Your task to perform on an android device: open chrome privacy settings Image 0: 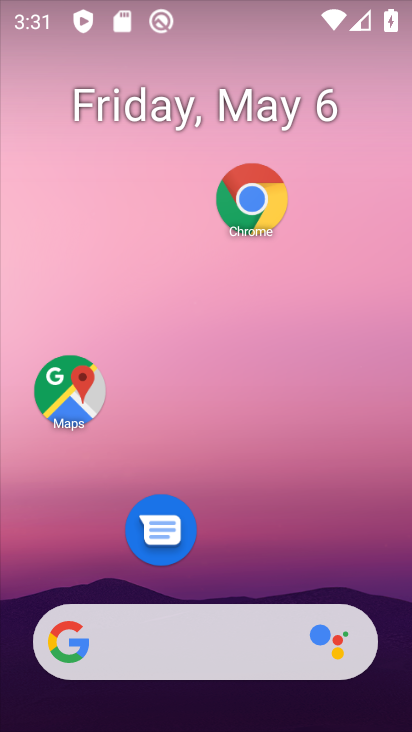
Step 0: drag from (362, 418) to (346, 205)
Your task to perform on an android device: open chrome privacy settings Image 1: 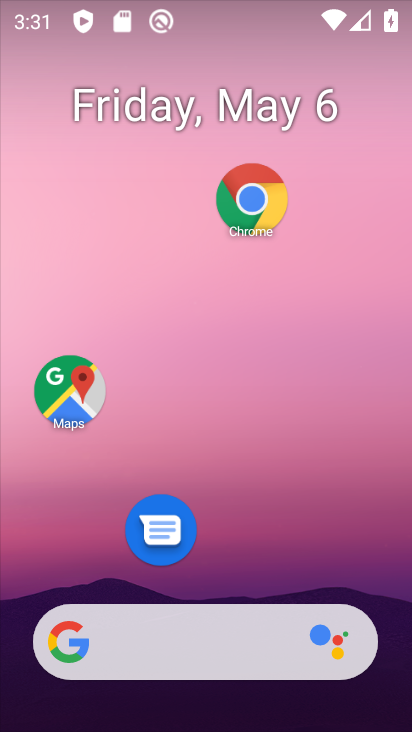
Step 1: click (286, 267)
Your task to perform on an android device: open chrome privacy settings Image 2: 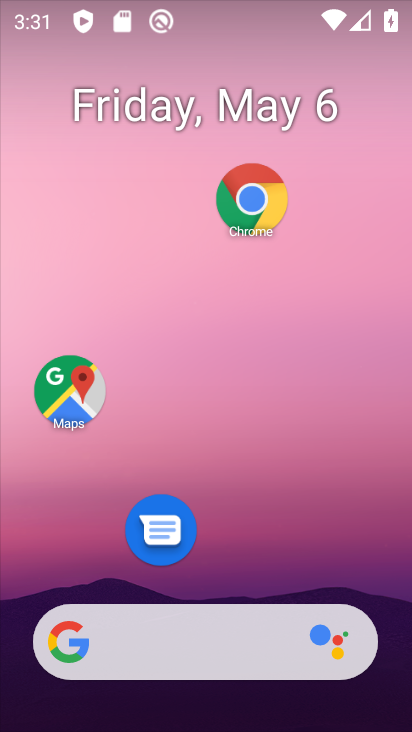
Step 2: click (259, 189)
Your task to perform on an android device: open chrome privacy settings Image 3: 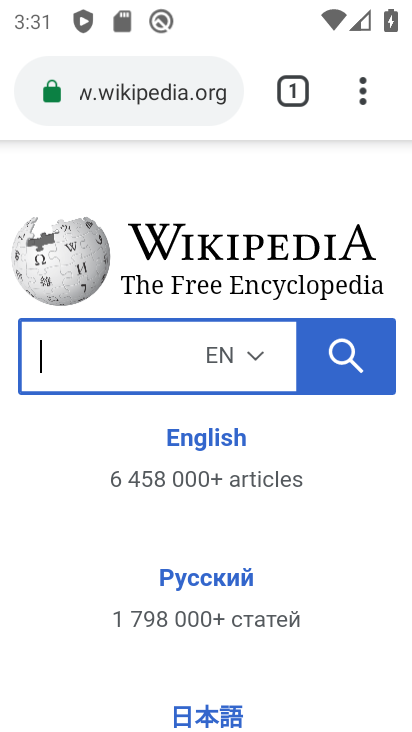
Step 3: click (365, 88)
Your task to perform on an android device: open chrome privacy settings Image 4: 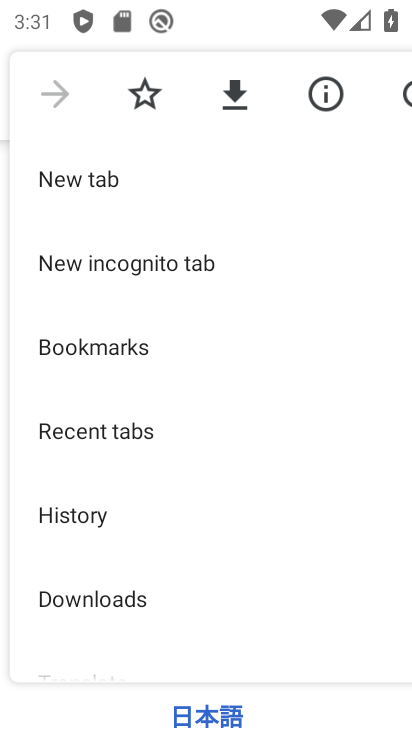
Step 4: drag from (323, 423) to (330, 113)
Your task to perform on an android device: open chrome privacy settings Image 5: 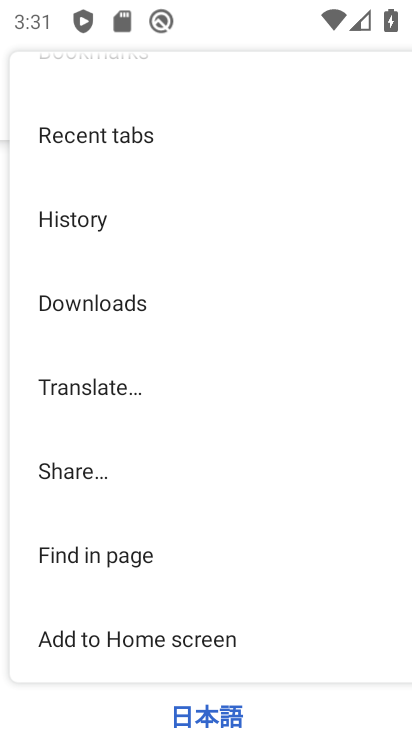
Step 5: drag from (241, 487) to (258, 203)
Your task to perform on an android device: open chrome privacy settings Image 6: 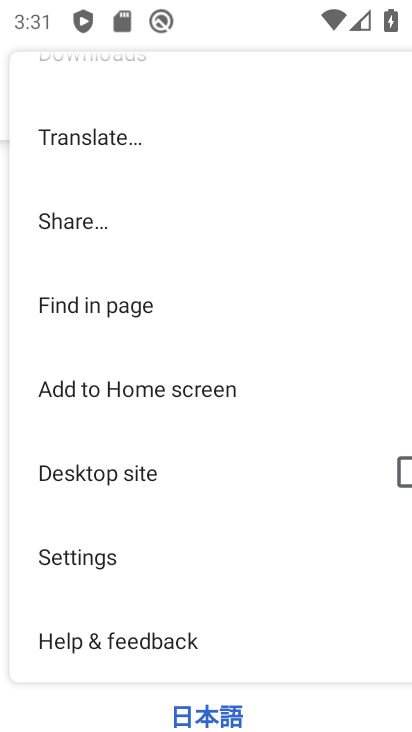
Step 6: drag from (178, 550) to (187, 303)
Your task to perform on an android device: open chrome privacy settings Image 7: 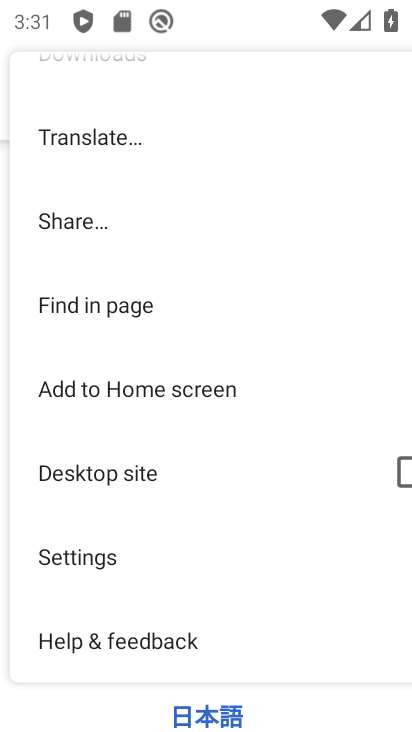
Step 7: click (152, 551)
Your task to perform on an android device: open chrome privacy settings Image 8: 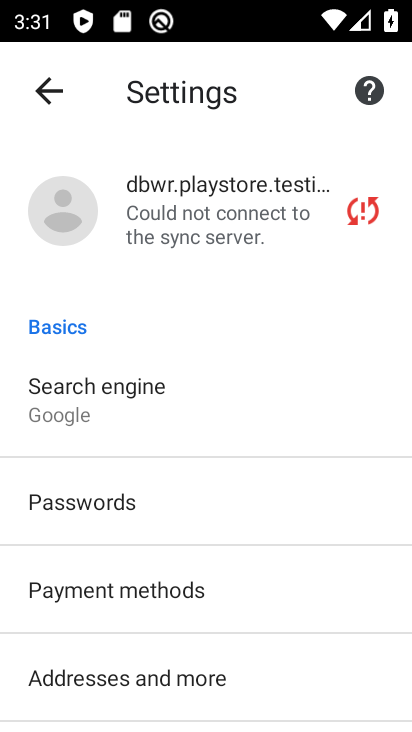
Step 8: drag from (154, 555) to (241, 93)
Your task to perform on an android device: open chrome privacy settings Image 9: 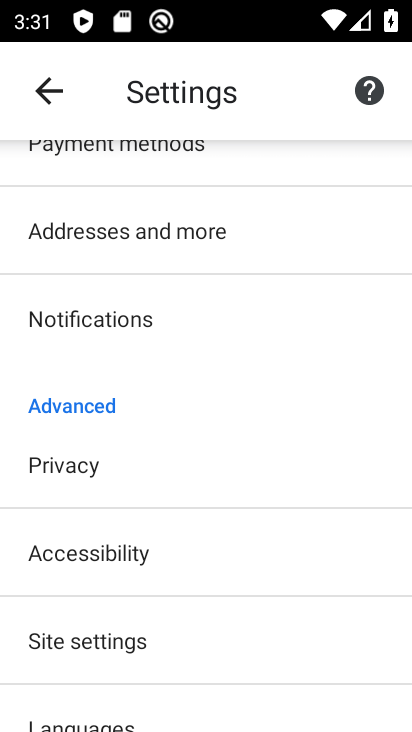
Step 9: drag from (178, 461) to (166, 95)
Your task to perform on an android device: open chrome privacy settings Image 10: 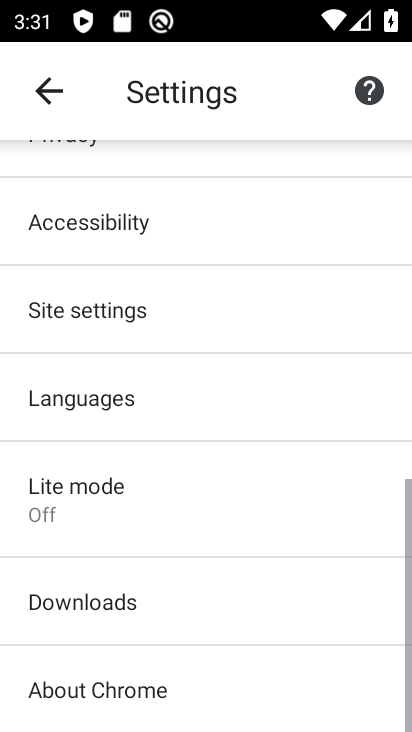
Step 10: drag from (137, 213) to (135, 260)
Your task to perform on an android device: open chrome privacy settings Image 11: 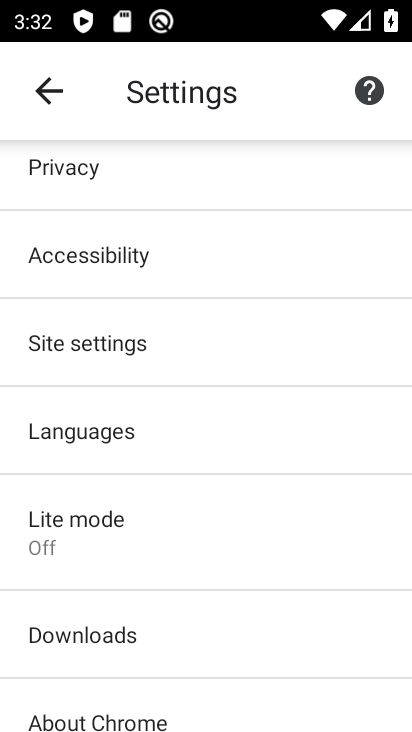
Step 11: click (114, 174)
Your task to perform on an android device: open chrome privacy settings Image 12: 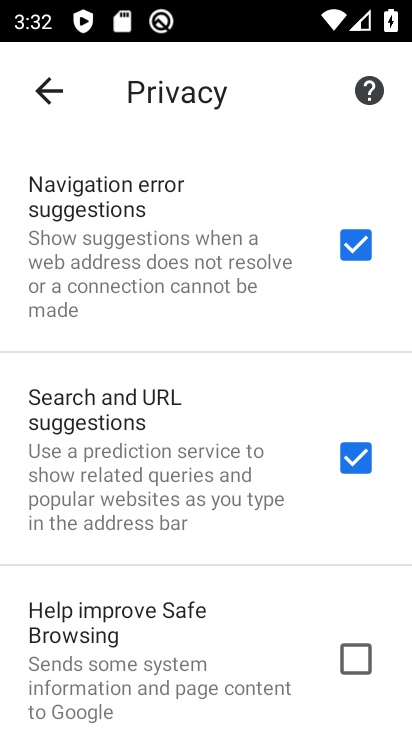
Step 12: click (114, 174)
Your task to perform on an android device: open chrome privacy settings Image 13: 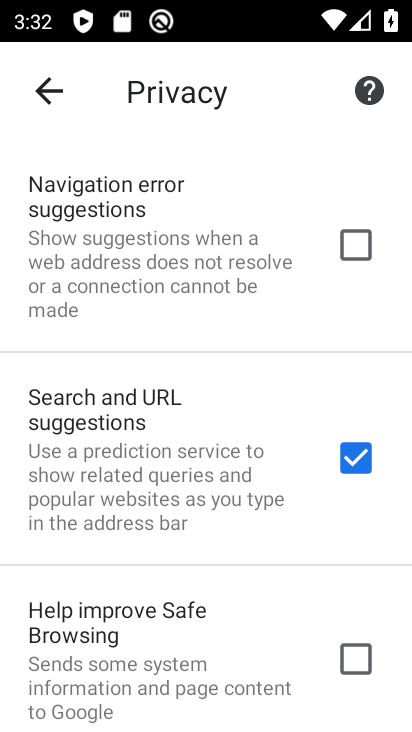
Step 13: click (114, 174)
Your task to perform on an android device: open chrome privacy settings Image 14: 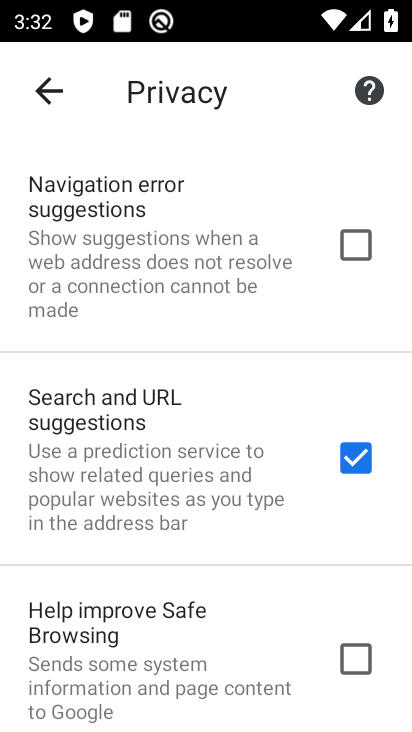
Step 14: click (114, 174)
Your task to perform on an android device: open chrome privacy settings Image 15: 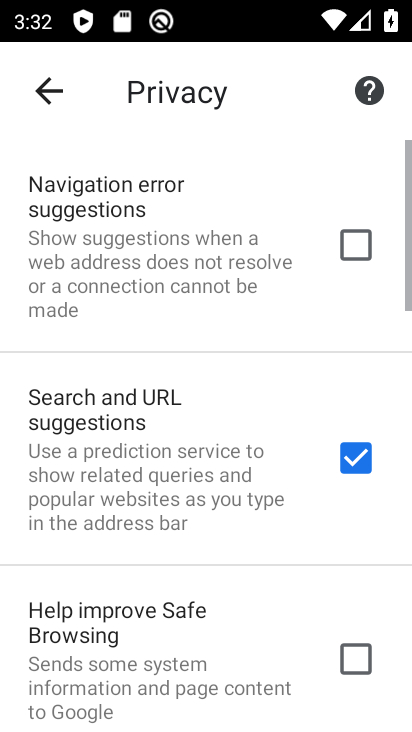
Step 15: click (114, 174)
Your task to perform on an android device: open chrome privacy settings Image 16: 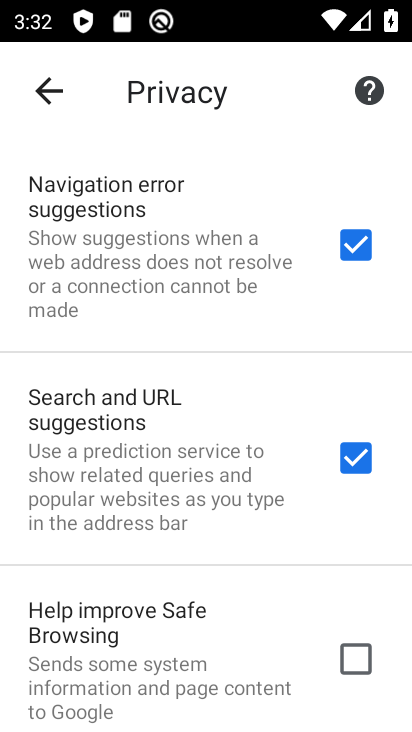
Step 16: task complete